Your task to perform on an android device: turn on notifications settings in the gmail app Image 0: 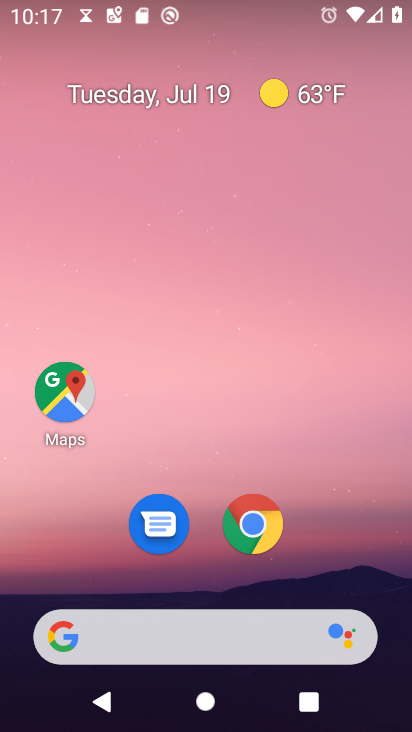
Step 0: press home button
Your task to perform on an android device: turn on notifications settings in the gmail app Image 1: 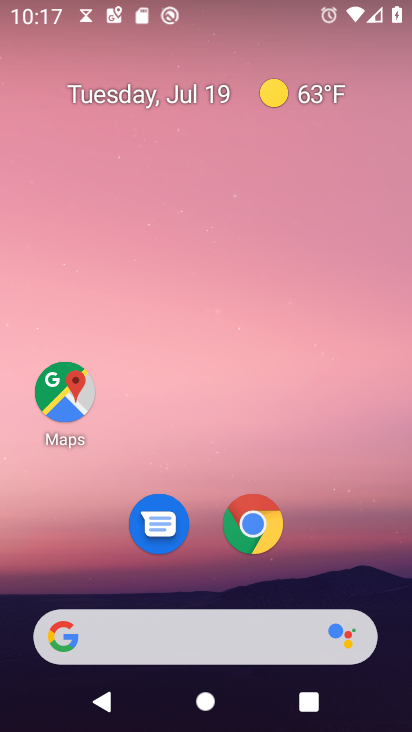
Step 1: drag from (156, 635) to (279, 150)
Your task to perform on an android device: turn on notifications settings in the gmail app Image 2: 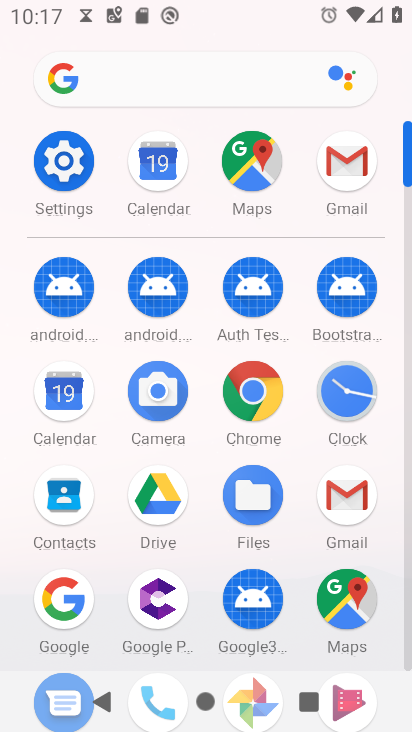
Step 2: click (348, 172)
Your task to perform on an android device: turn on notifications settings in the gmail app Image 3: 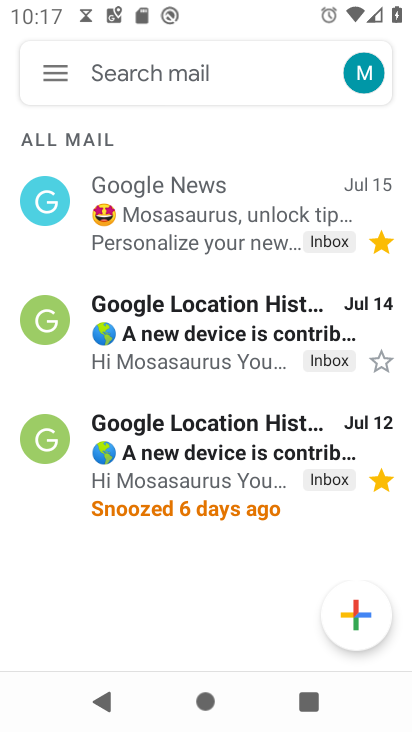
Step 3: click (50, 73)
Your task to perform on an android device: turn on notifications settings in the gmail app Image 4: 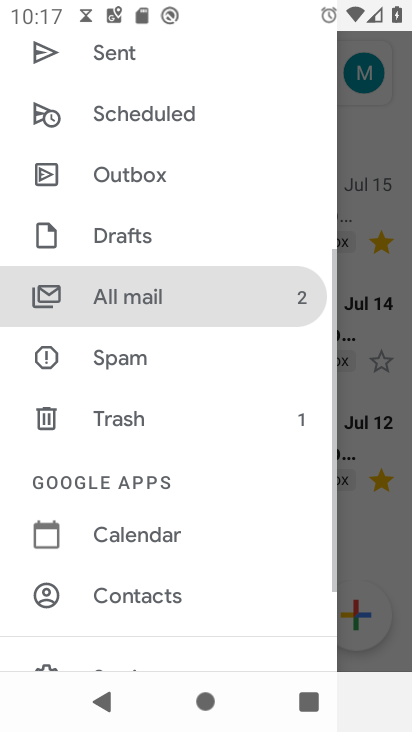
Step 4: drag from (197, 581) to (238, 101)
Your task to perform on an android device: turn on notifications settings in the gmail app Image 5: 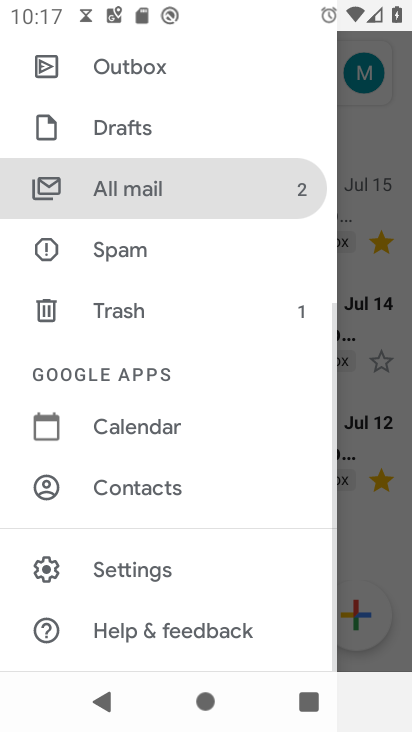
Step 5: click (159, 567)
Your task to perform on an android device: turn on notifications settings in the gmail app Image 6: 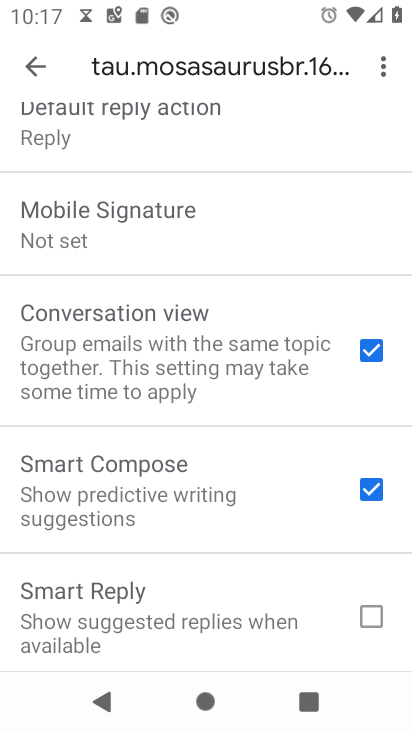
Step 6: drag from (264, 149) to (251, 704)
Your task to perform on an android device: turn on notifications settings in the gmail app Image 7: 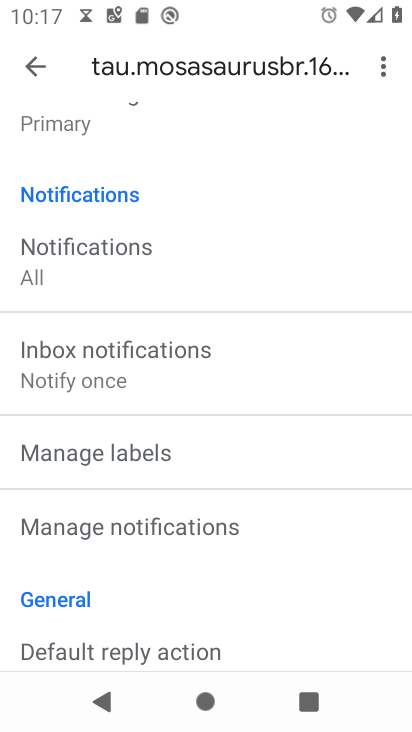
Step 7: click (65, 264)
Your task to perform on an android device: turn on notifications settings in the gmail app Image 8: 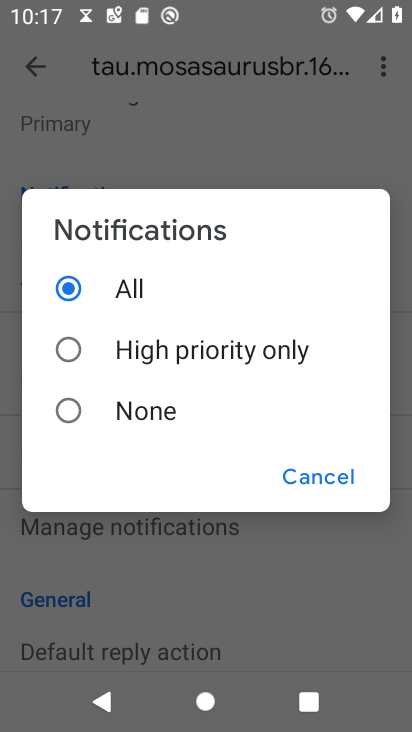
Step 8: task complete